Your task to perform on an android device: all mails in gmail Image 0: 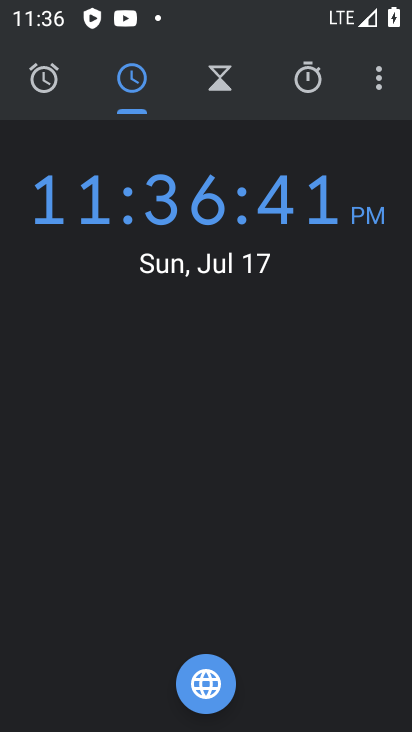
Step 0: press back button
Your task to perform on an android device: all mails in gmail Image 1: 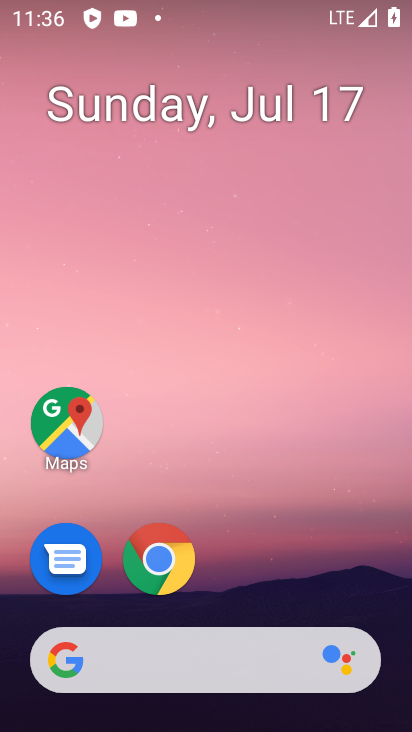
Step 1: drag from (245, 584) to (289, 19)
Your task to perform on an android device: all mails in gmail Image 2: 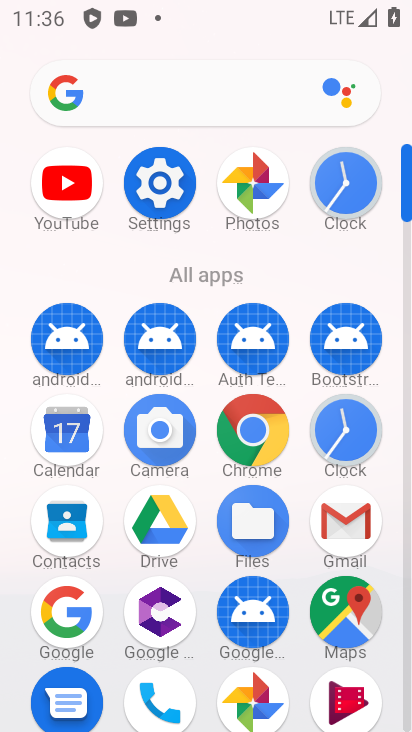
Step 2: click (346, 525)
Your task to perform on an android device: all mails in gmail Image 3: 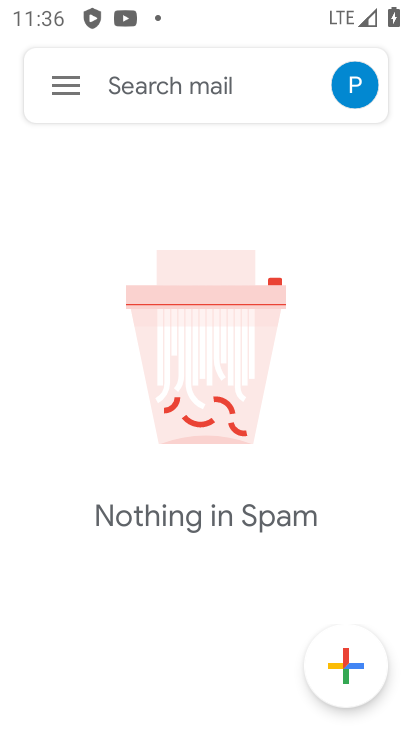
Step 3: click (47, 82)
Your task to perform on an android device: all mails in gmail Image 4: 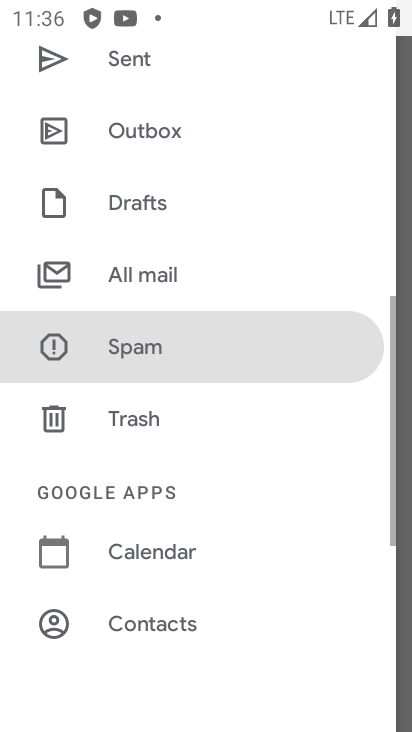
Step 4: click (183, 260)
Your task to perform on an android device: all mails in gmail Image 5: 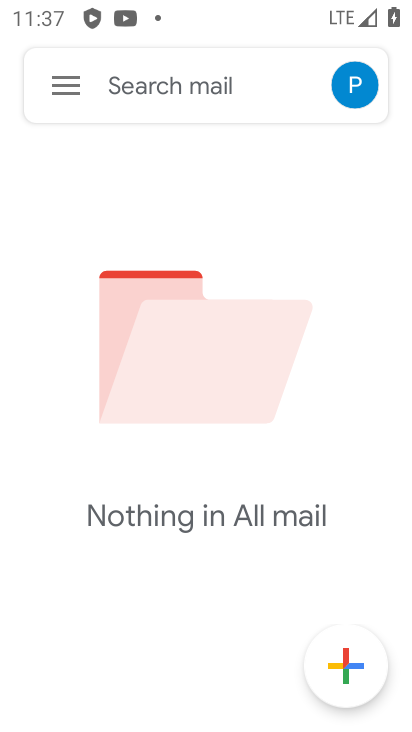
Step 5: task complete